Your task to perform on an android device: toggle pop-ups in chrome Image 0: 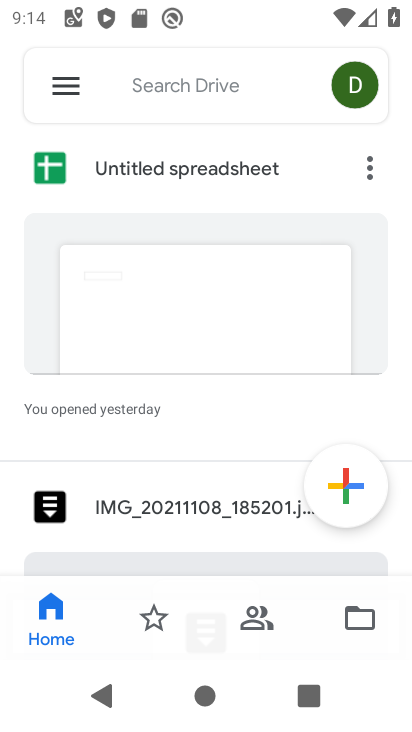
Step 0: press home button
Your task to perform on an android device: toggle pop-ups in chrome Image 1: 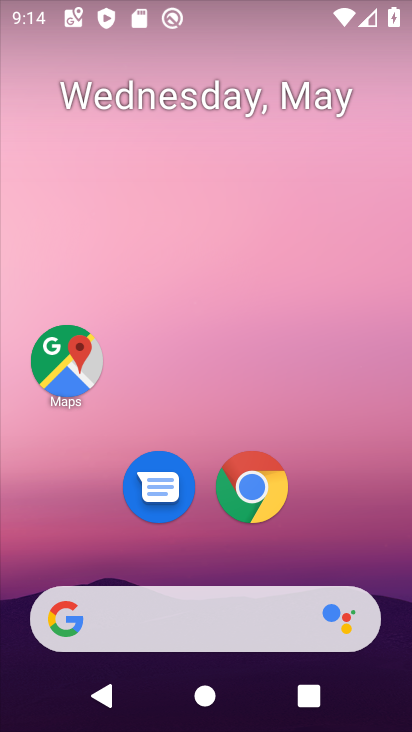
Step 1: click (258, 494)
Your task to perform on an android device: toggle pop-ups in chrome Image 2: 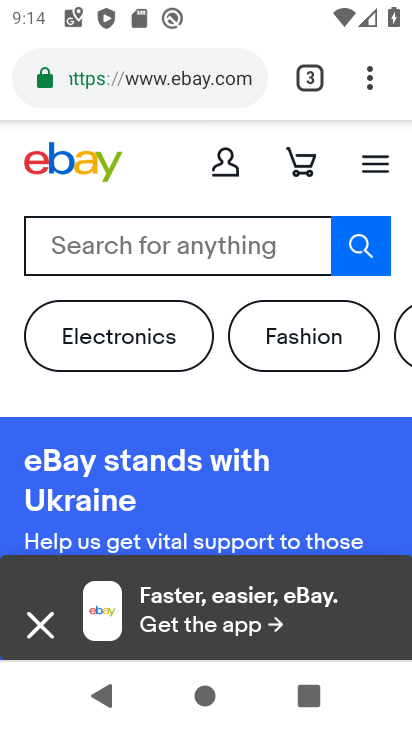
Step 2: click (371, 78)
Your task to perform on an android device: toggle pop-ups in chrome Image 3: 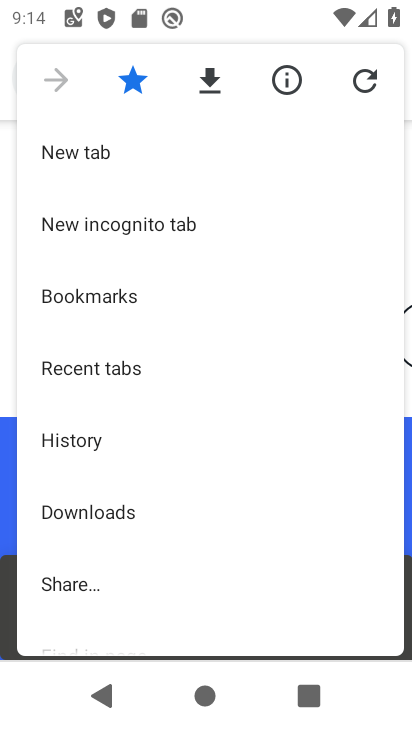
Step 3: drag from (198, 483) to (173, 228)
Your task to perform on an android device: toggle pop-ups in chrome Image 4: 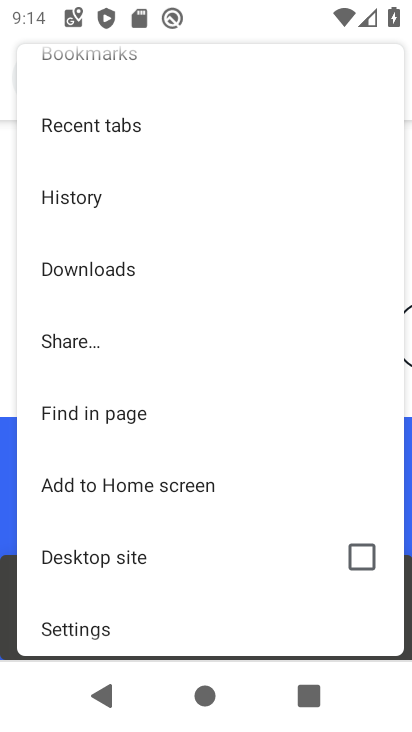
Step 4: click (81, 626)
Your task to perform on an android device: toggle pop-ups in chrome Image 5: 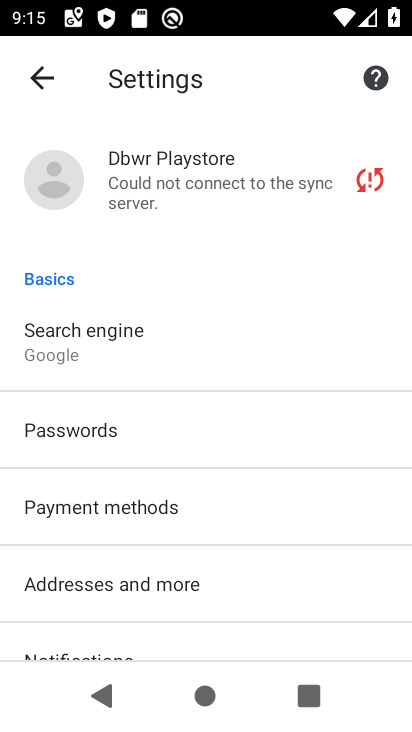
Step 5: drag from (199, 510) to (164, 245)
Your task to perform on an android device: toggle pop-ups in chrome Image 6: 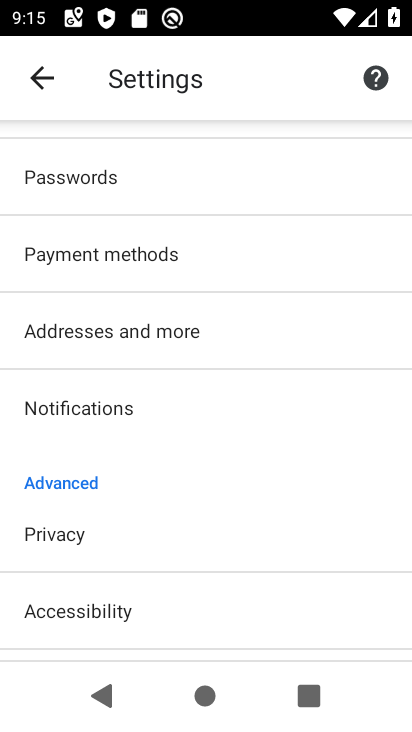
Step 6: drag from (212, 476) to (187, 219)
Your task to perform on an android device: toggle pop-ups in chrome Image 7: 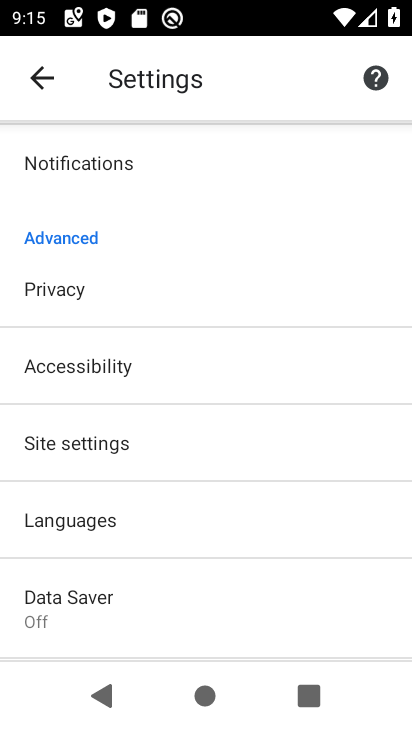
Step 7: click (109, 445)
Your task to perform on an android device: toggle pop-ups in chrome Image 8: 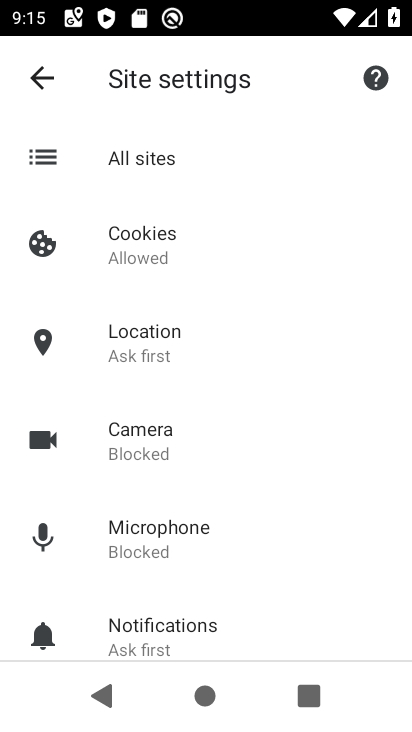
Step 8: drag from (263, 589) to (268, 352)
Your task to perform on an android device: toggle pop-ups in chrome Image 9: 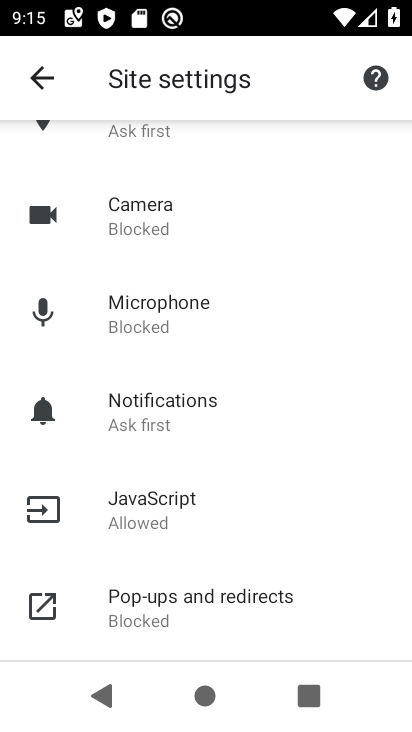
Step 9: click (186, 593)
Your task to perform on an android device: toggle pop-ups in chrome Image 10: 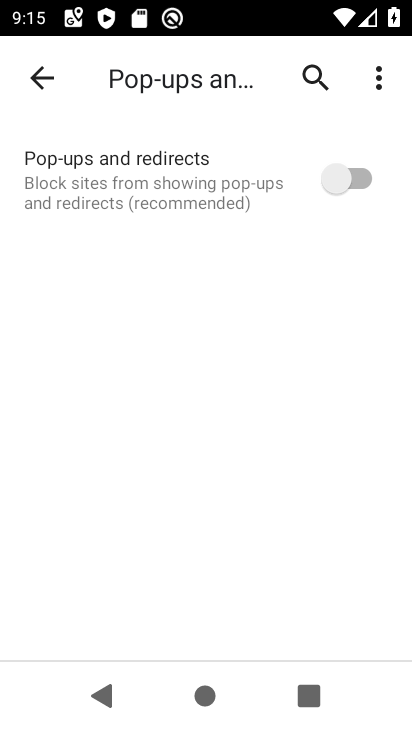
Step 10: click (340, 181)
Your task to perform on an android device: toggle pop-ups in chrome Image 11: 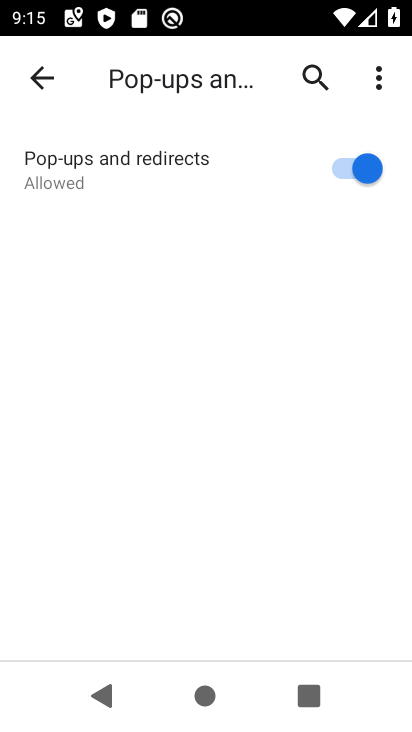
Step 11: task complete